Your task to perform on an android device: change the clock display to show seconds Image 0: 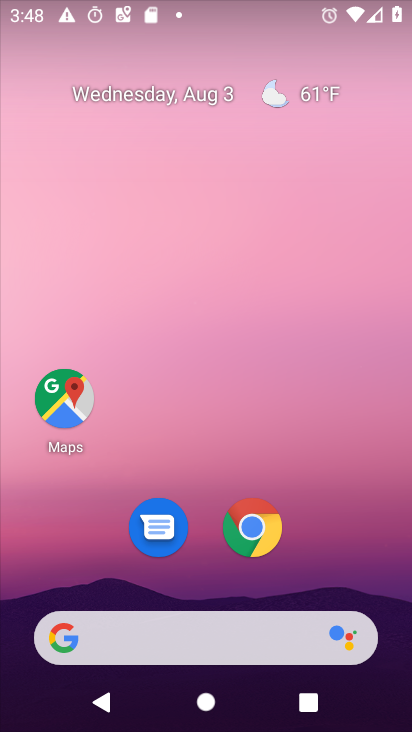
Step 0: drag from (325, 507) to (340, 107)
Your task to perform on an android device: change the clock display to show seconds Image 1: 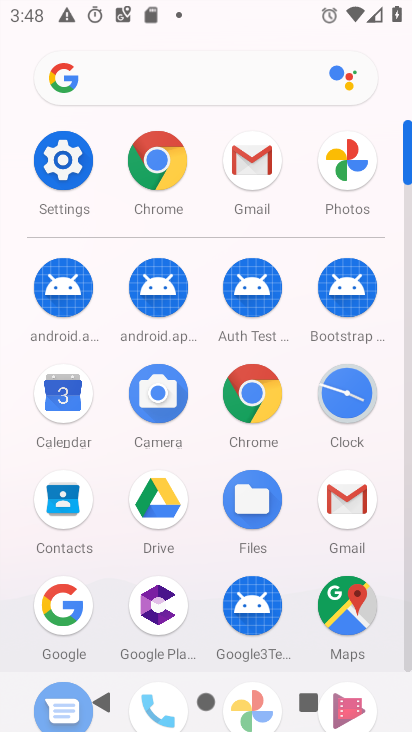
Step 1: click (342, 404)
Your task to perform on an android device: change the clock display to show seconds Image 2: 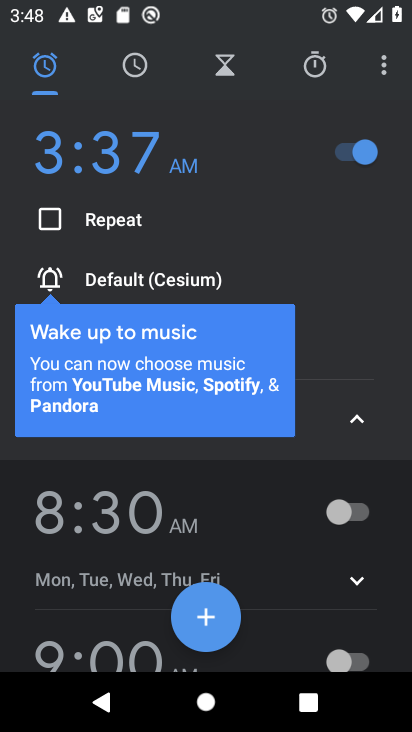
Step 2: click (385, 68)
Your task to perform on an android device: change the clock display to show seconds Image 3: 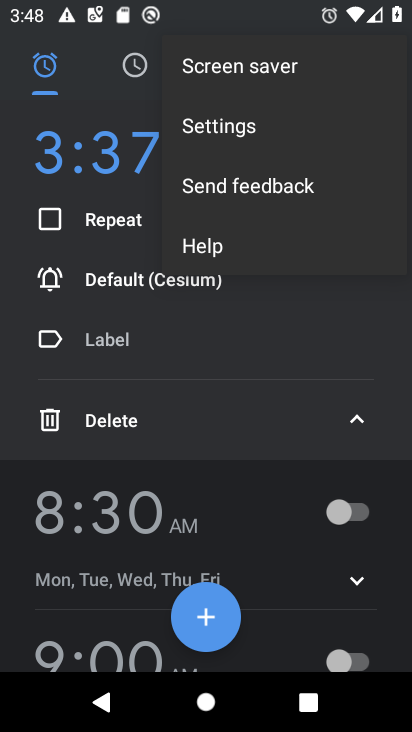
Step 3: click (256, 126)
Your task to perform on an android device: change the clock display to show seconds Image 4: 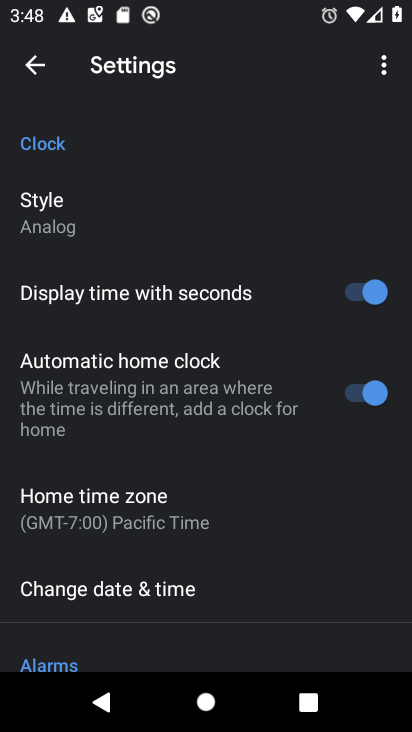
Step 4: click (375, 302)
Your task to perform on an android device: change the clock display to show seconds Image 5: 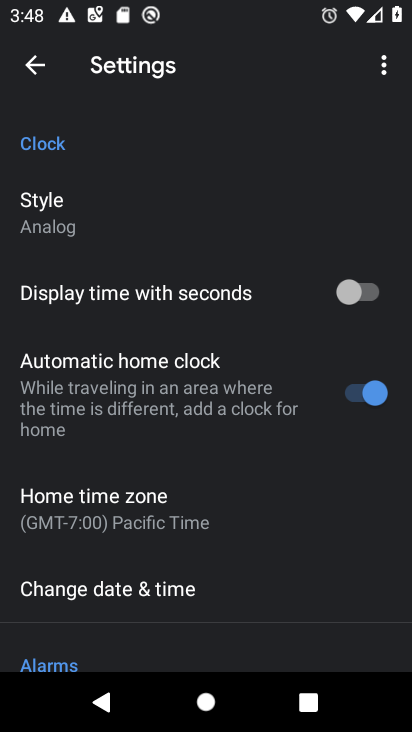
Step 5: task complete